Your task to perform on an android device: Toggle the flashlight Image 0: 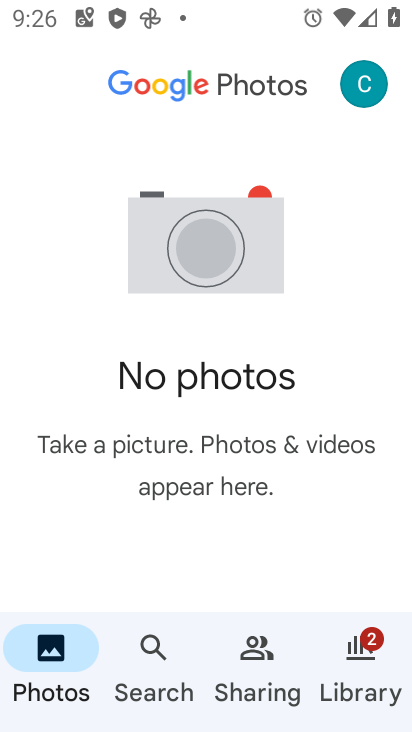
Step 0: press home button
Your task to perform on an android device: Toggle the flashlight Image 1: 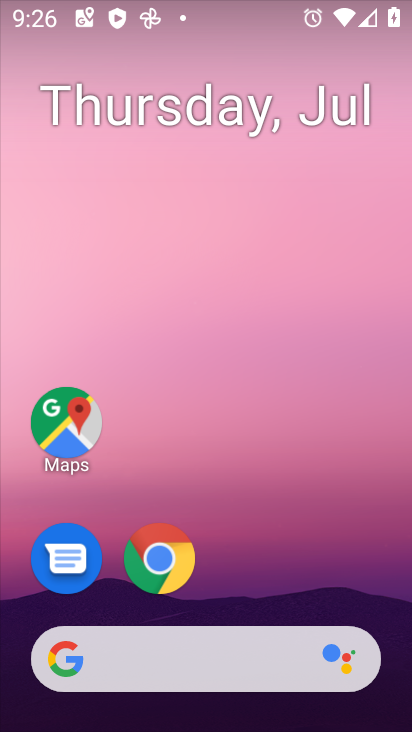
Step 1: drag from (252, 7) to (292, 273)
Your task to perform on an android device: Toggle the flashlight Image 2: 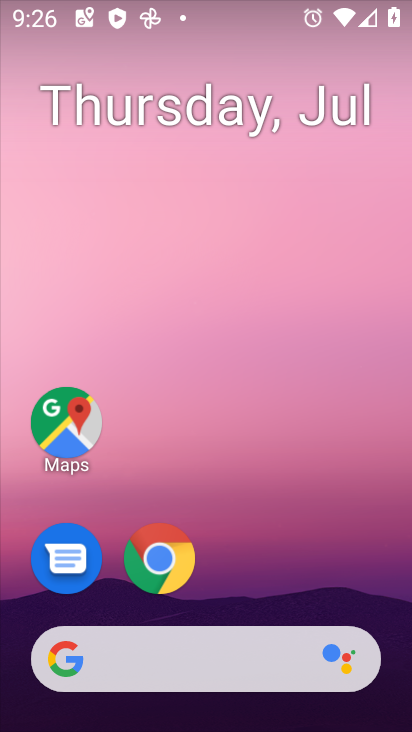
Step 2: drag from (240, 4) to (264, 285)
Your task to perform on an android device: Toggle the flashlight Image 3: 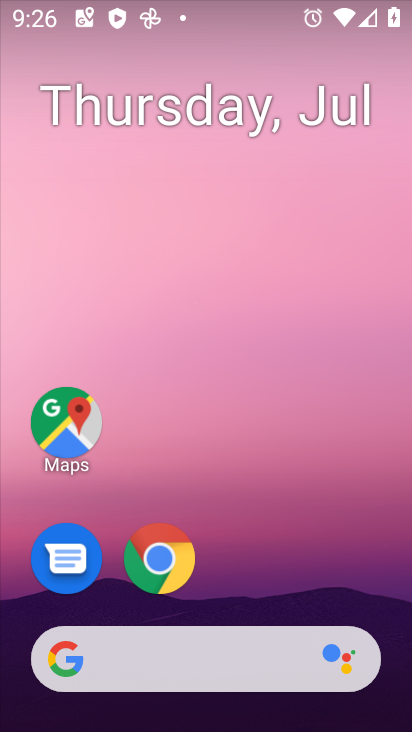
Step 3: drag from (241, 6) to (282, 473)
Your task to perform on an android device: Toggle the flashlight Image 4: 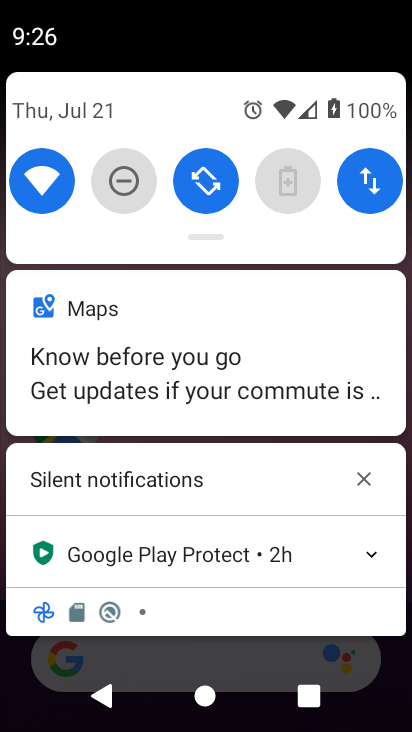
Step 4: drag from (240, 131) to (268, 374)
Your task to perform on an android device: Toggle the flashlight Image 5: 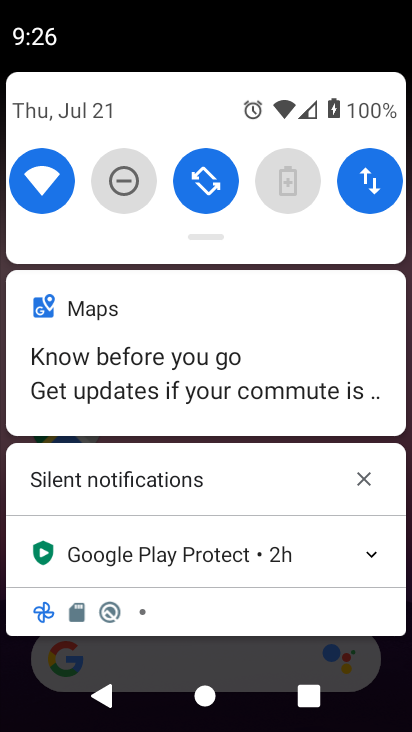
Step 5: drag from (237, 143) to (272, 392)
Your task to perform on an android device: Toggle the flashlight Image 6: 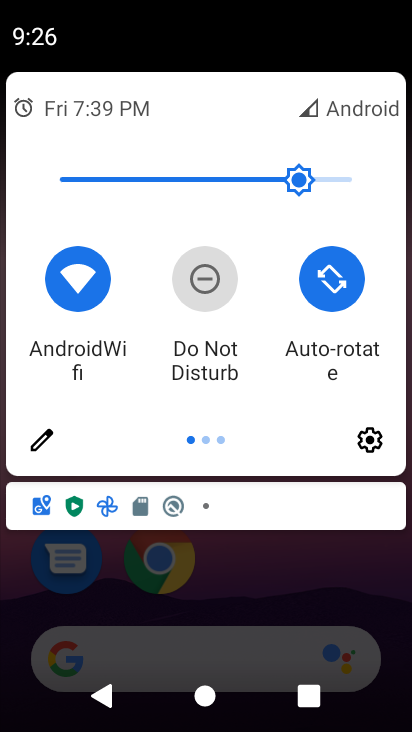
Step 6: click (82, 437)
Your task to perform on an android device: Toggle the flashlight Image 7: 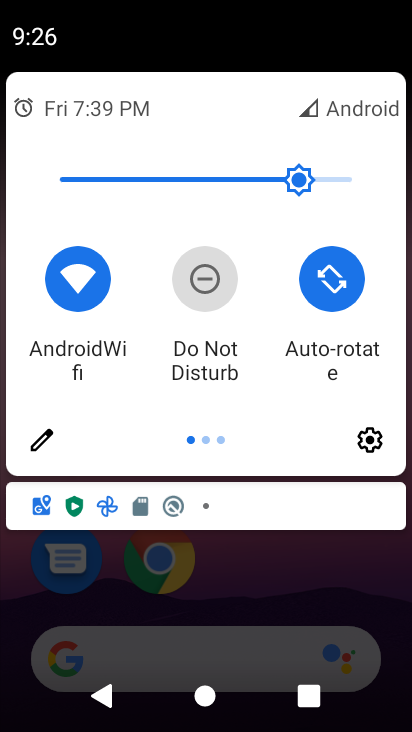
Step 7: click (38, 435)
Your task to perform on an android device: Toggle the flashlight Image 8: 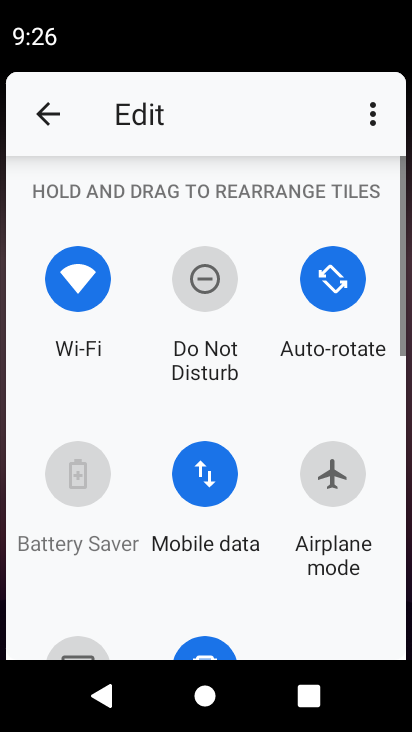
Step 8: task complete